Your task to perform on an android device: turn on sleep mode Image 0: 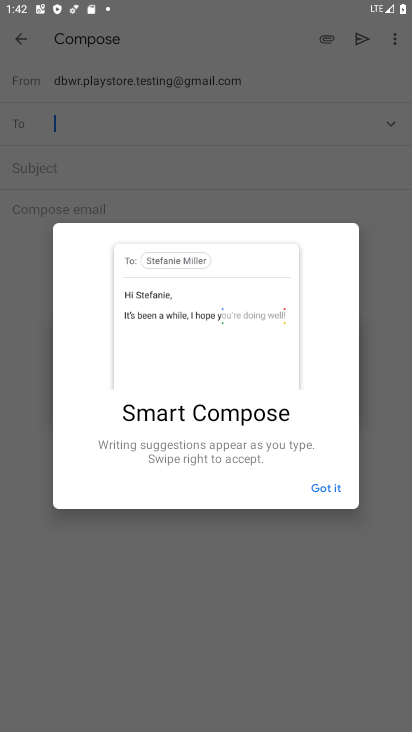
Step 0: press home button
Your task to perform on an android device: turn on sleep mode Image 1: 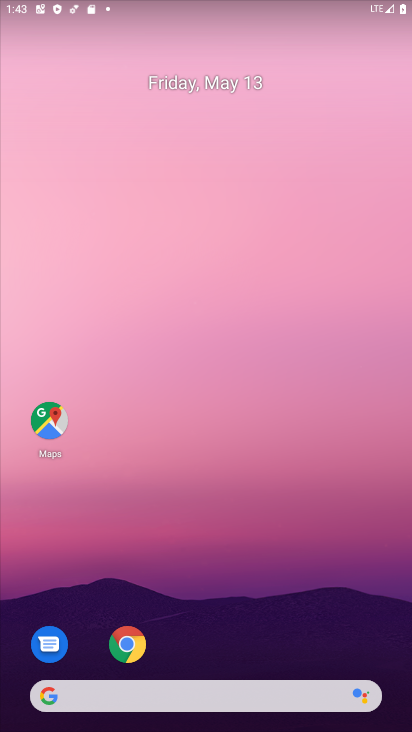
Step 1: drag from (238, 661) to (251, 60)
Your task to perform on an android device: turn on sleep mode Image 2: 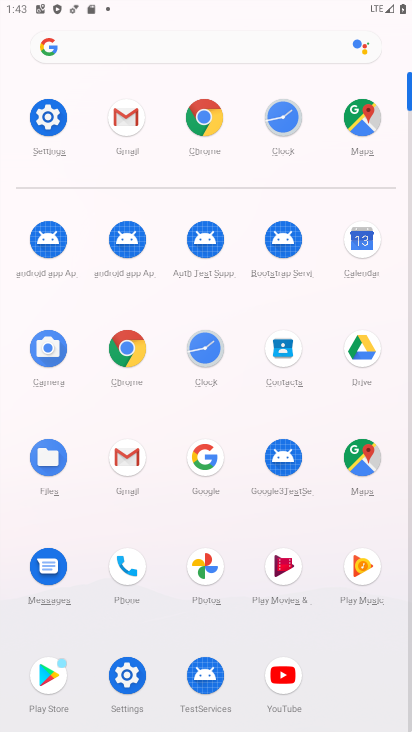
Step 2: click (43, 131)
Your task to perform on an android device: turn on sleep mode Image 3: 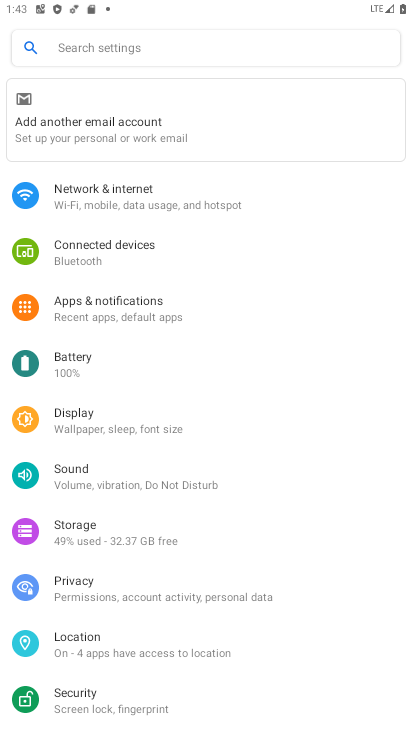
Step 3: task complete